Your task to perform on an android device: Open Android settings Image 0: 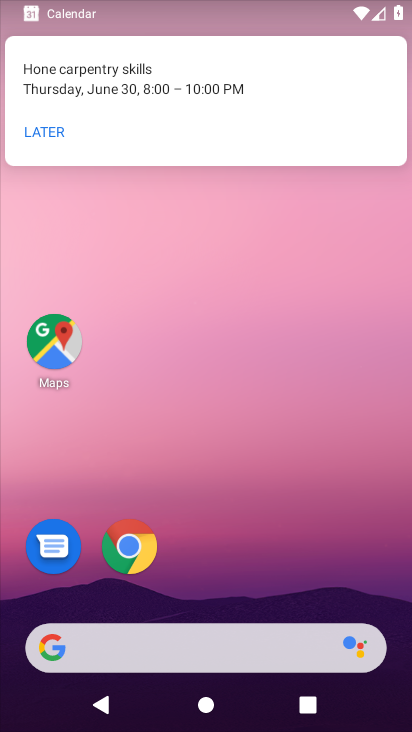
Step 0: drag from (334, 566) to (382, 103)
Your task to perform on an android device: Open Android settings Image 1: 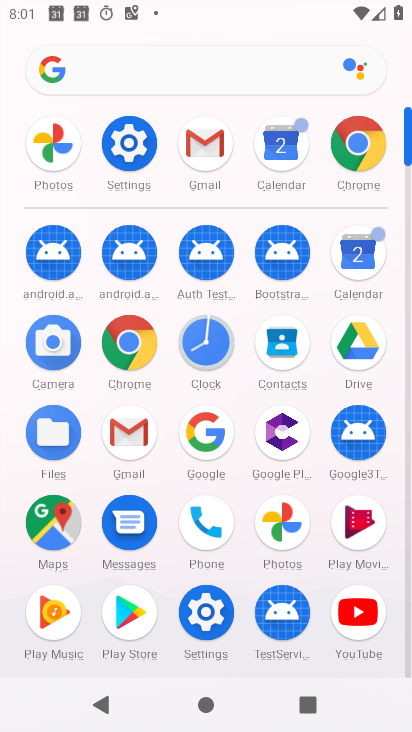
Step 1: click (199, 625)
Your task to perform on an android device: Open Android settings Image 2: 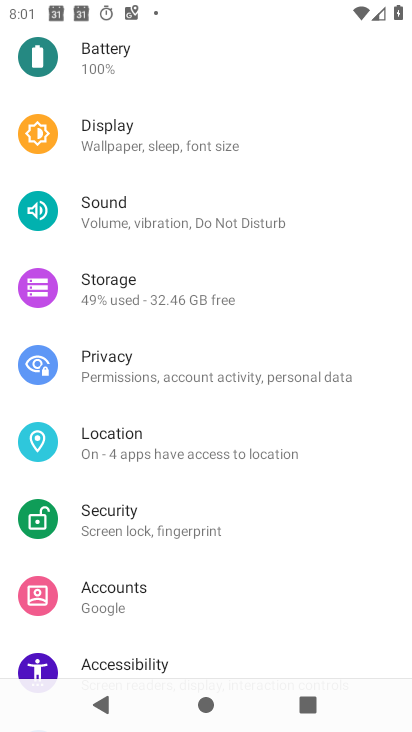
Step 2: drag from (241, 673) to (324, 194)
Your task to perform on an android device: Open Android settings Image 3: 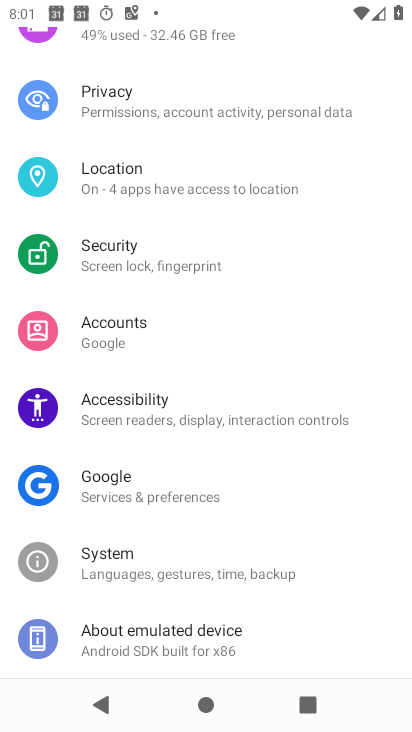
Step 3: click (164, 632)
Your task to perform on an android device: Open Android settings Image 4: 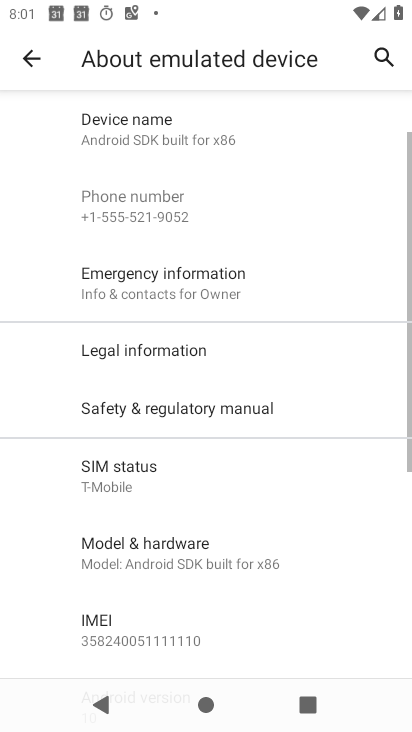
Step 4: drag from (300, 534) to (380, 251)
Your task to perform on an android device: Open Android settings Image 5: 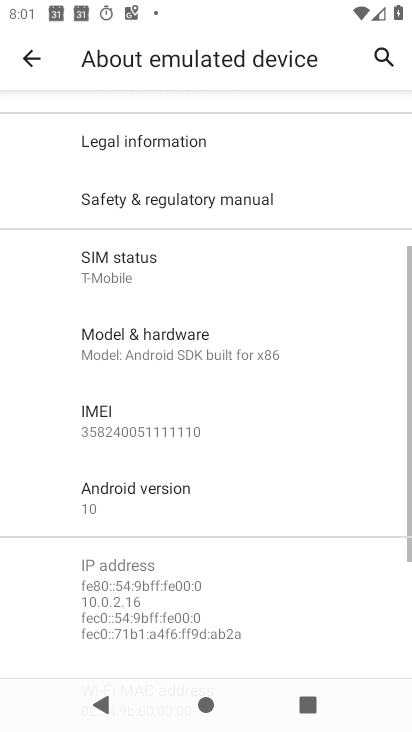
Step 5: click (188, 490)
Your task to perform on an android device: Open Android settings Image 6: 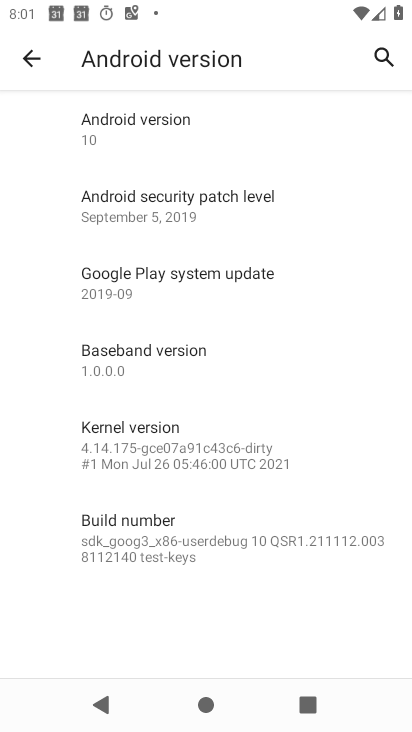
Step 6: task complete